Your task to perform on an android device: toggle priority inbox in the gmail app Image 0: 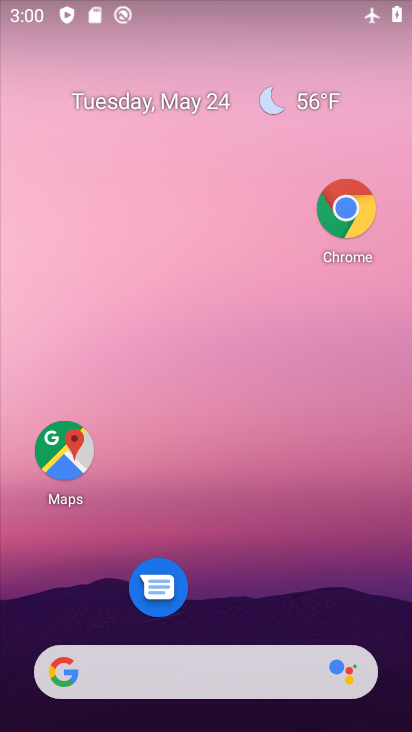
Step 0: drag from (245, 498) to (340, 212)
Your task to perform on an android device: toggle priority inbox in the gmail app Image 1: 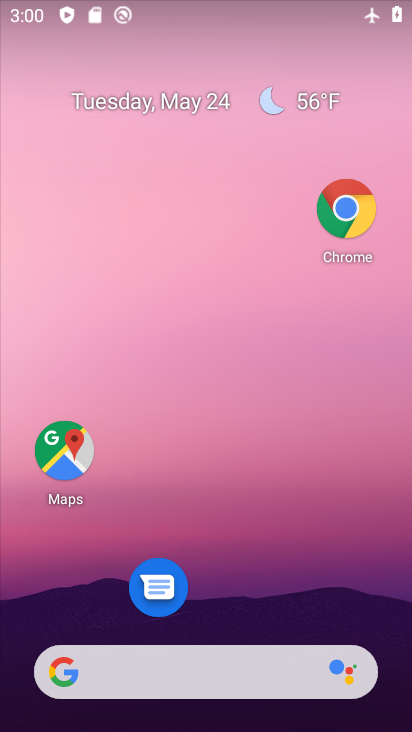
Step 1: drag from (219, 444) to (285, 117)
Your task to perform on an android device: toggle priority inbox in the gmail app Image 2: 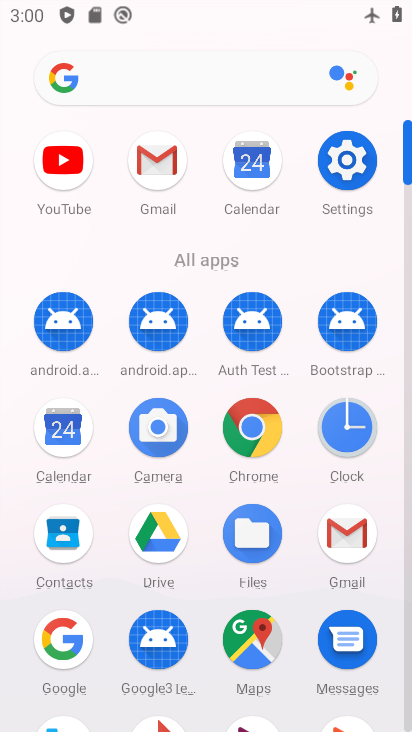
Step 2: click (153, 157)
Your task to perform on an android device: toggle priority inbox in the gmail app Image 3: 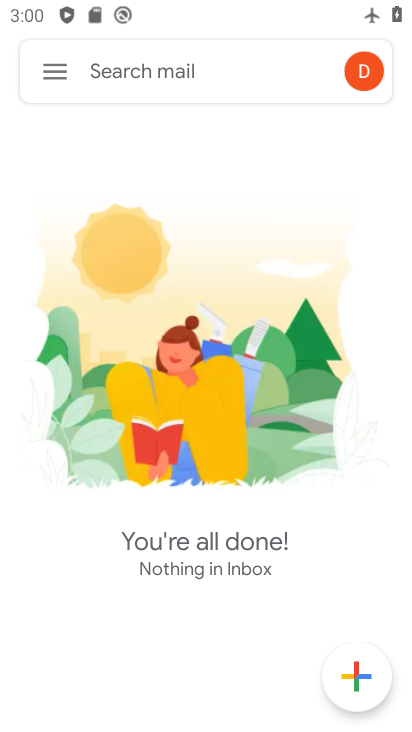
Step 3: click (50, 67)
Your task to perform on an android device: toggle priority inbox in the gmail app Image 4: 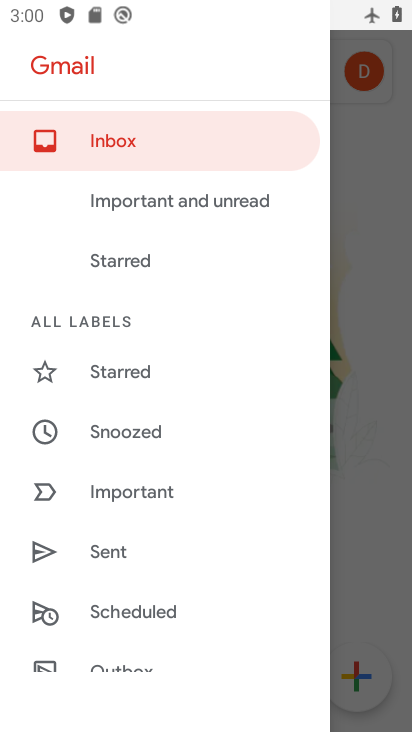
Step 4: drag from (160, 586) to (218, 216)
Your task to perform on an android device: toggle priority inbox in the gmail app Image 5: 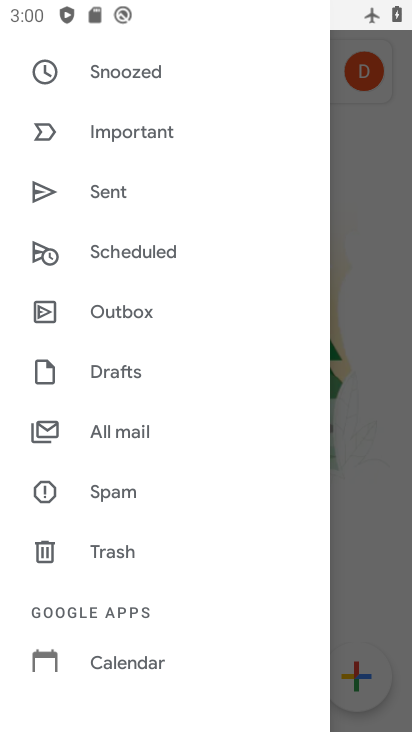
Step 5: drag from (122, 601) to (193, 248)
Your task to perform on an android device: toggle priority inbox in the gmail app Image 6: 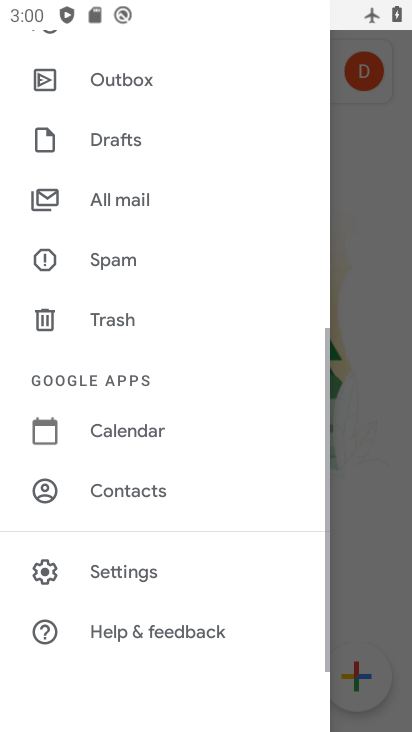
Step 6: click (118, 569)
Your task to perform on an android device: toggle priority inbox in the gmail app Image 7: 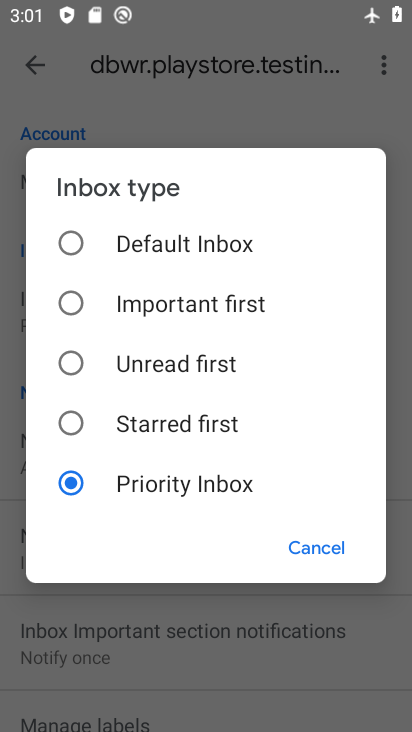
Step 7: task complete